Your task to perform on an android device: check android version Image 0: 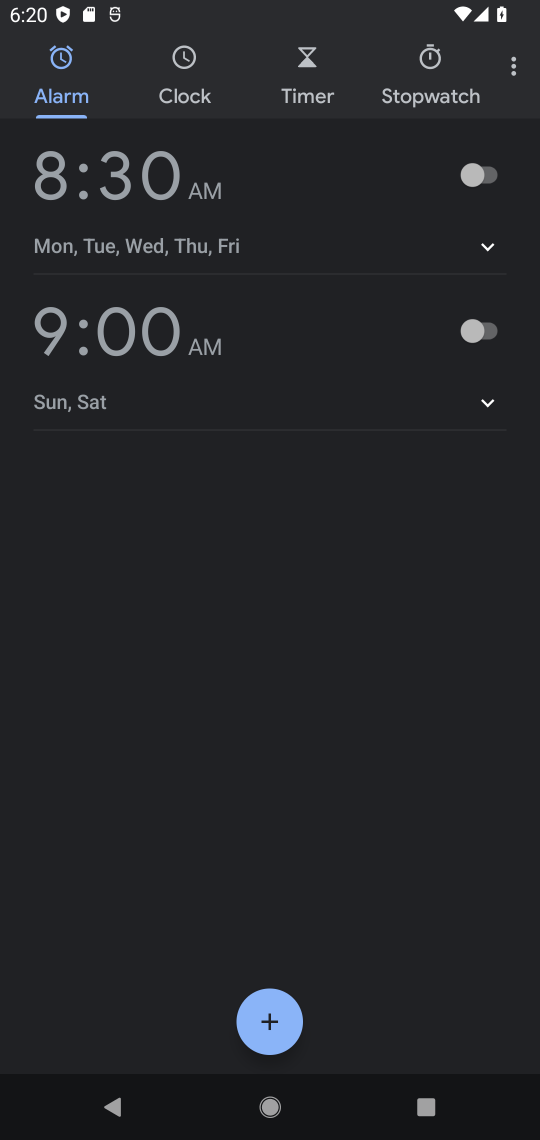
Step 0: press back button
Your task to perform on an android device: check android version Image 1: 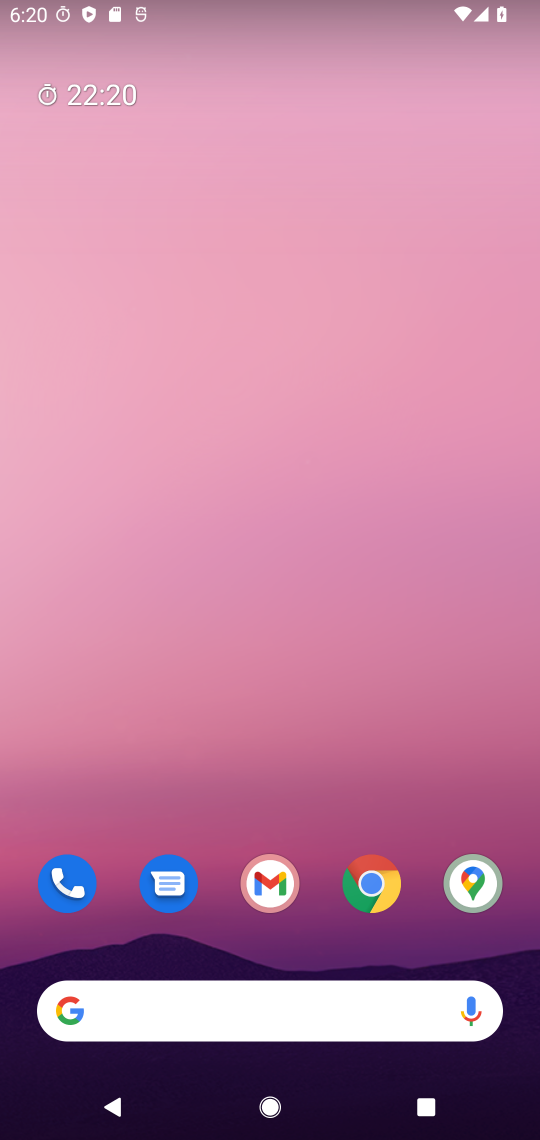
Step 1: drag from (258, 645) to (260, 146)
Your task to perform on an android device: check android version Image 2: 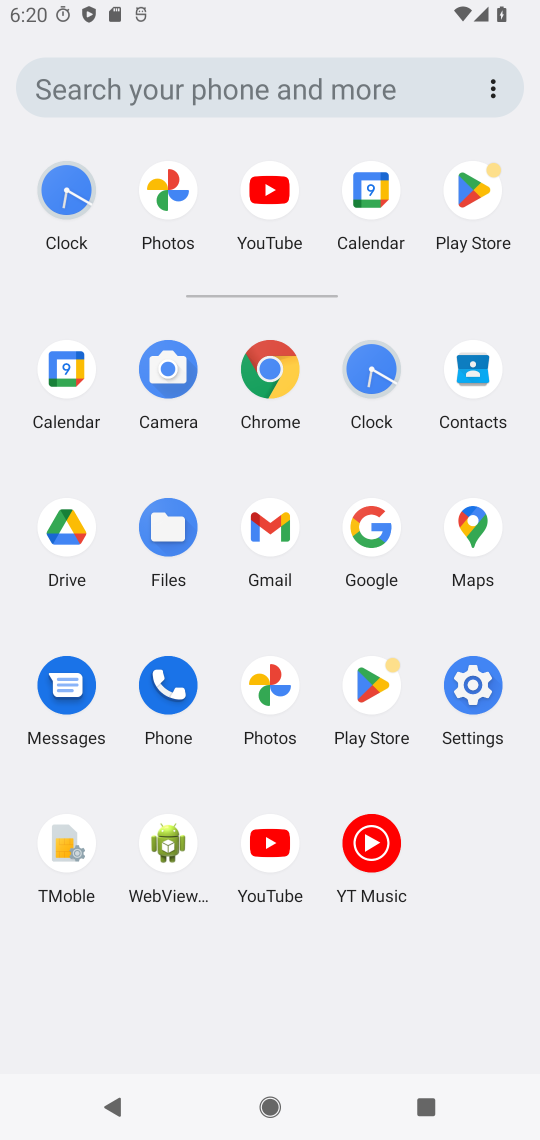
Step 2: click (461, 706)
Your task to perform on an android device: check android version Image 3: 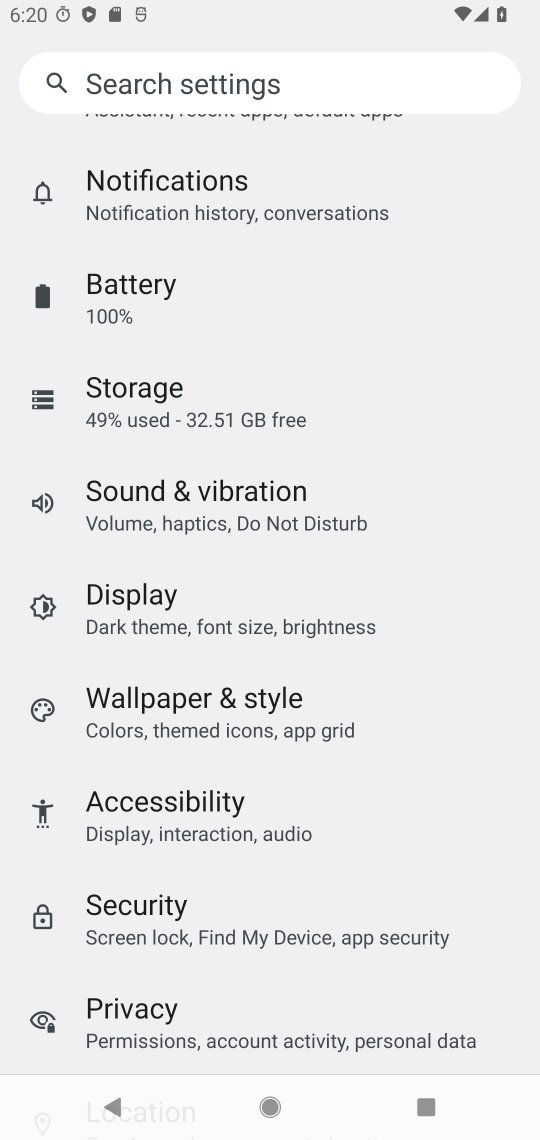
Step 3: drag from (301, 999) to (331, 139)
Your task to perform on an android device: check android version Image 4: 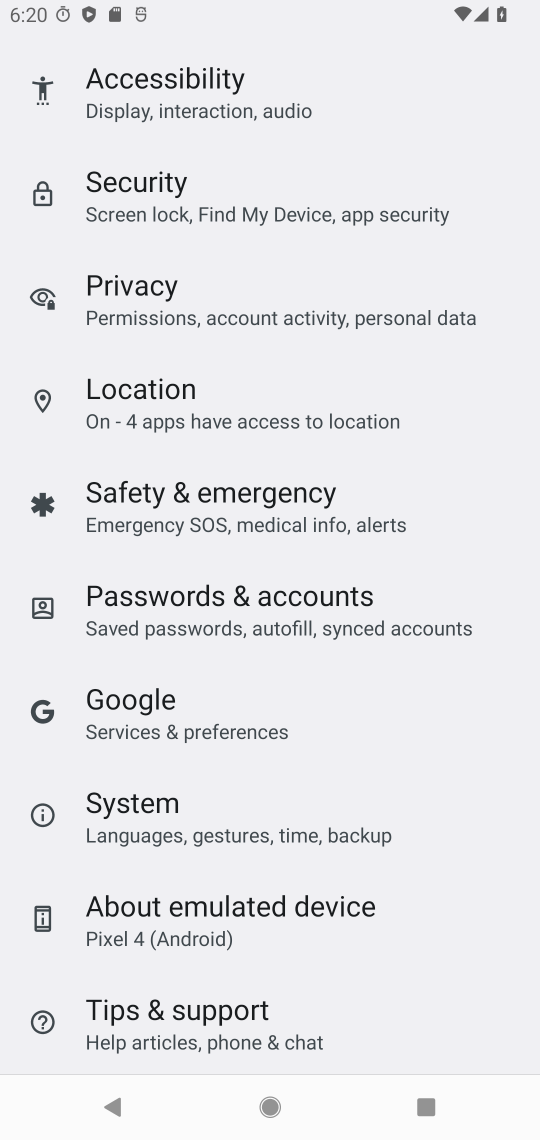
Step 4: drag from (263, 899) to (279, 323)
Your task to perform on an android device: check android version Image 5: 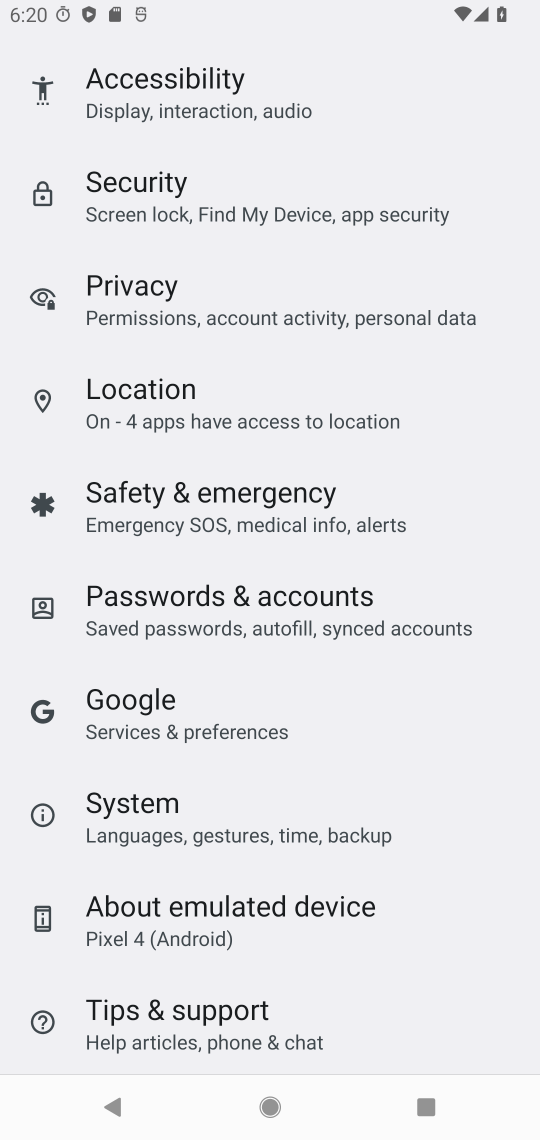
Step 5: click (234, 931)
Your task to perform on an android device: check android version Image 6: 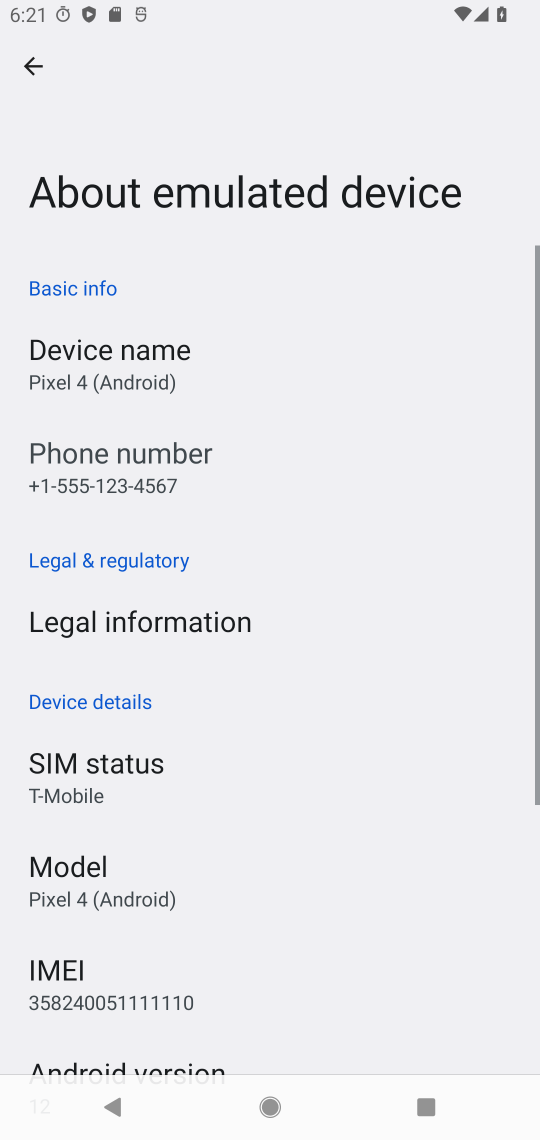
Step 6: drag from (278, 955) to (368, 209)
Your task to perform on an android device: check android version Image 7: 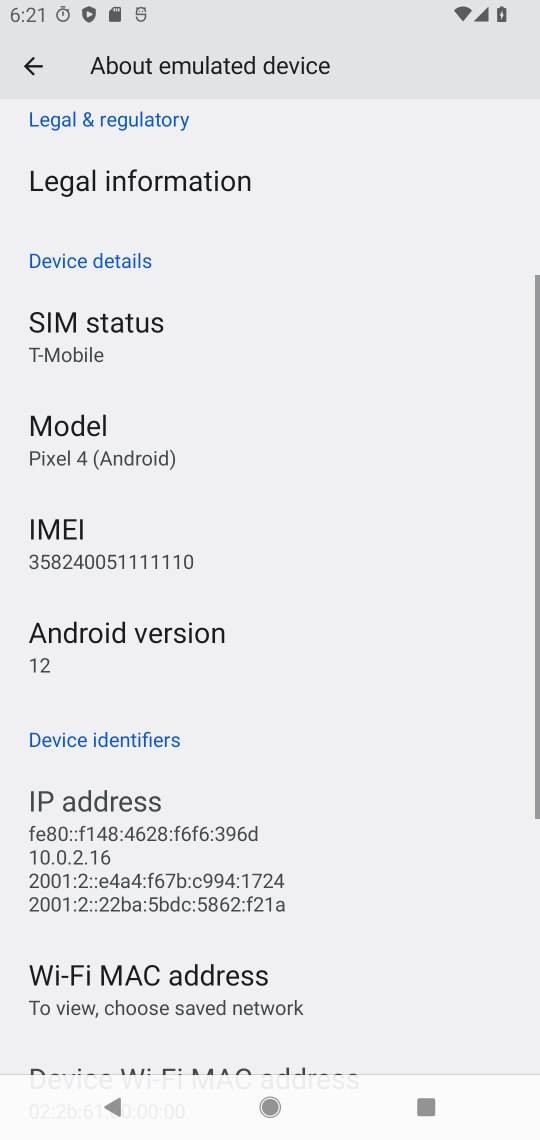
Step 7: click (214, 631)
Your task to perform on an android device: check android version Image 8: 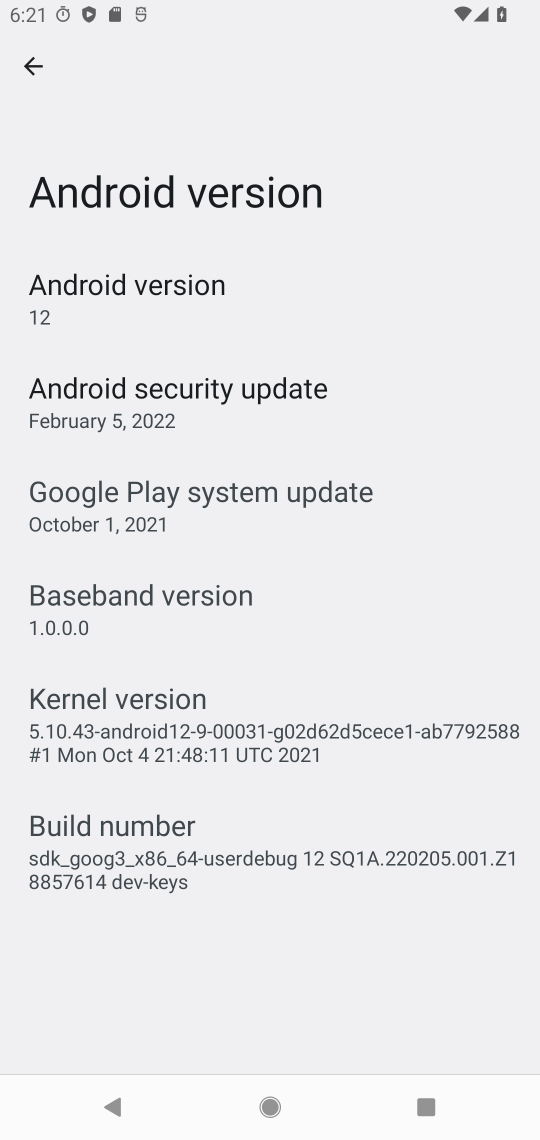
Step 8: click (215, 313)
Your task to perform on an android device: check android version Image 9: 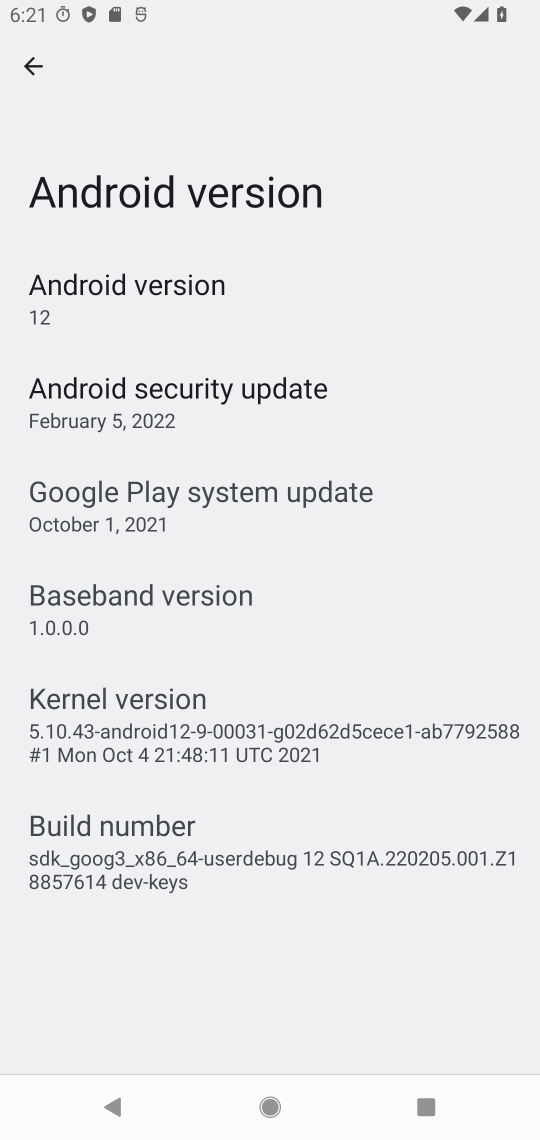
Step 9: task complete